Your task to perform on an android device: find snoozed emails in the gmail app Image 0: 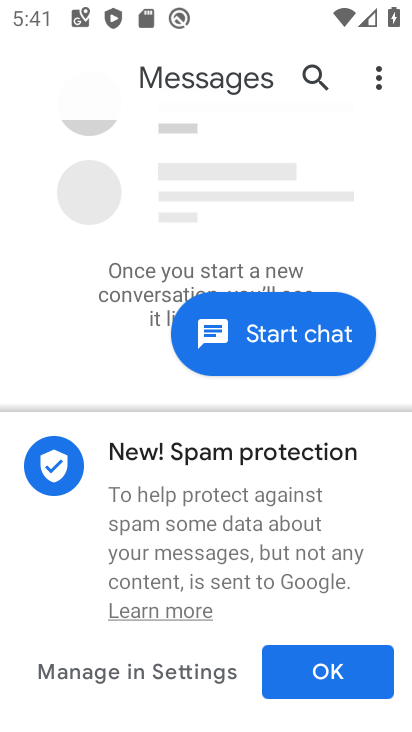
Step 0: press back button
Your task to perform on an android device: find snoozed emails in the gmail app Image 1: 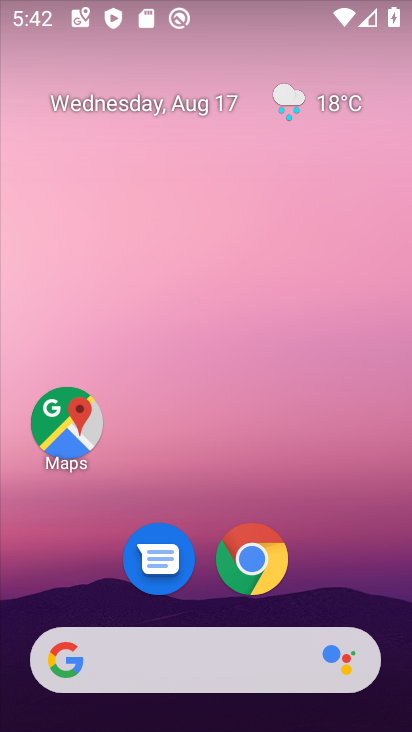
Step 1: drag from (172, 643) to (277, 45)
Your task to perform on an android device: find snoozed emails in the gmail app Image 2: 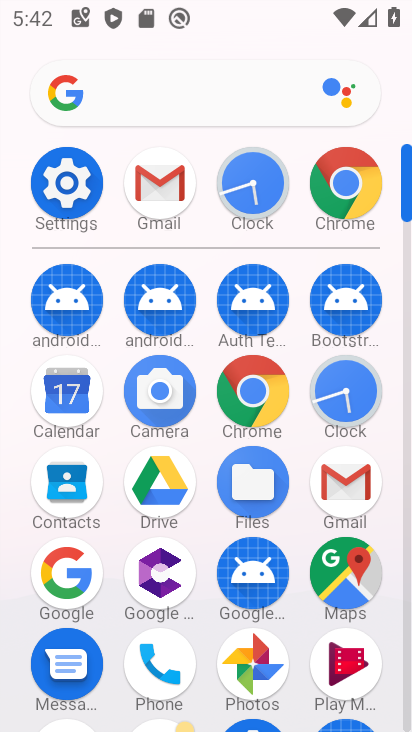
Step 2: click (334, 478)
Your task to perform on an android device: find snoozed emails in the gmail app Image 3: 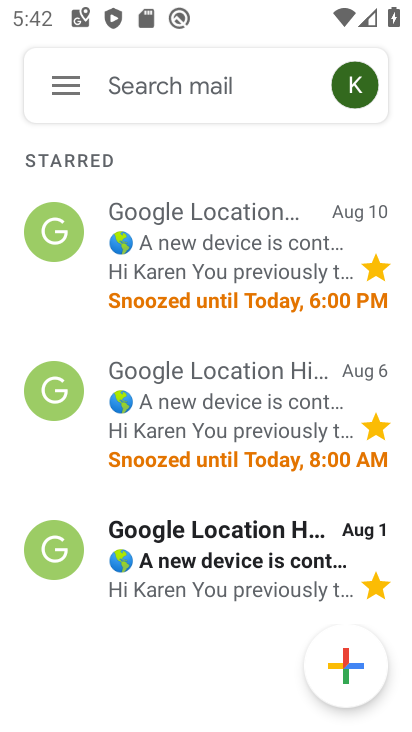
Step 3: click (70, 89)
Your task to perform on an android device: find snoozed emails in the gmail app Image 4: 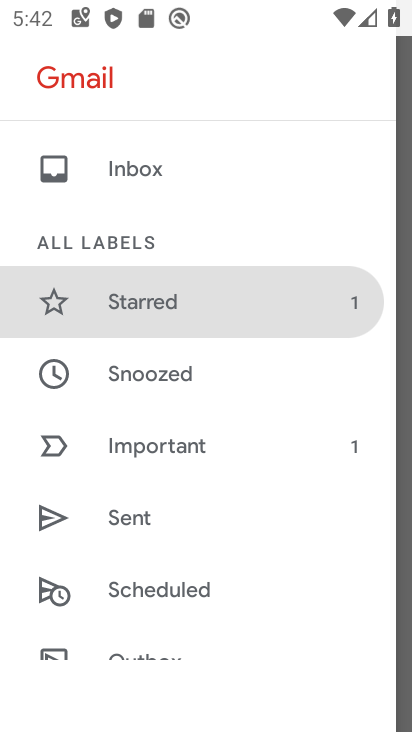
Step 4: click (145, 365)
Your task to perform on an android device: find snoozed emails in the gmail app Image 5: 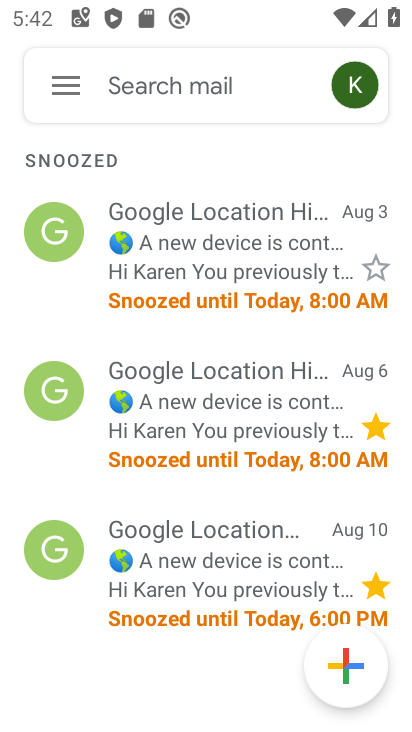
Step 5: task complete